Your task to perform on an android device: Go to network settings Image 0: 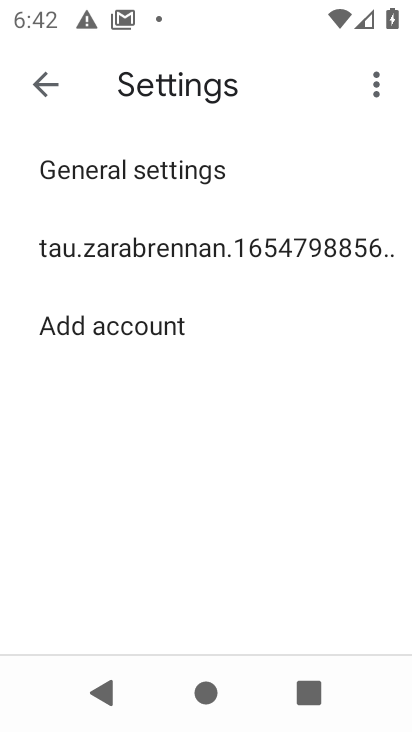
Step 0: press home button
Your task to perform on an android device: Go to network settings Image 1: 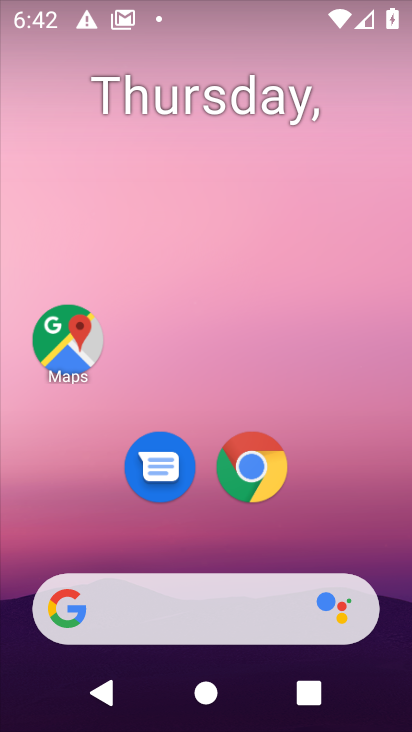
Step 1: task complete